Your task to perform on an android device: set the stopwatch Image 0: 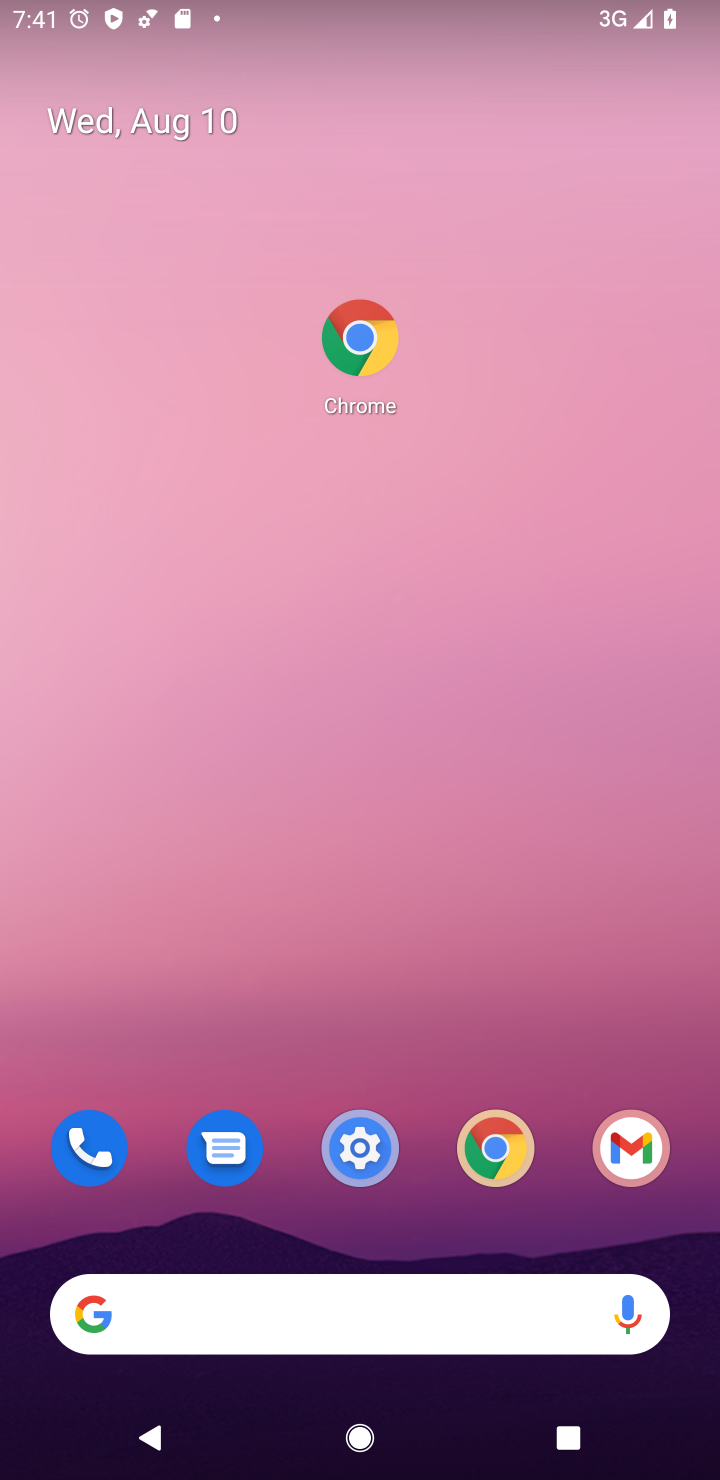
Step 0: drag from (402, 1206) to (515, 325)
Your task to perform on an android device: set the stopwatch Image 1: 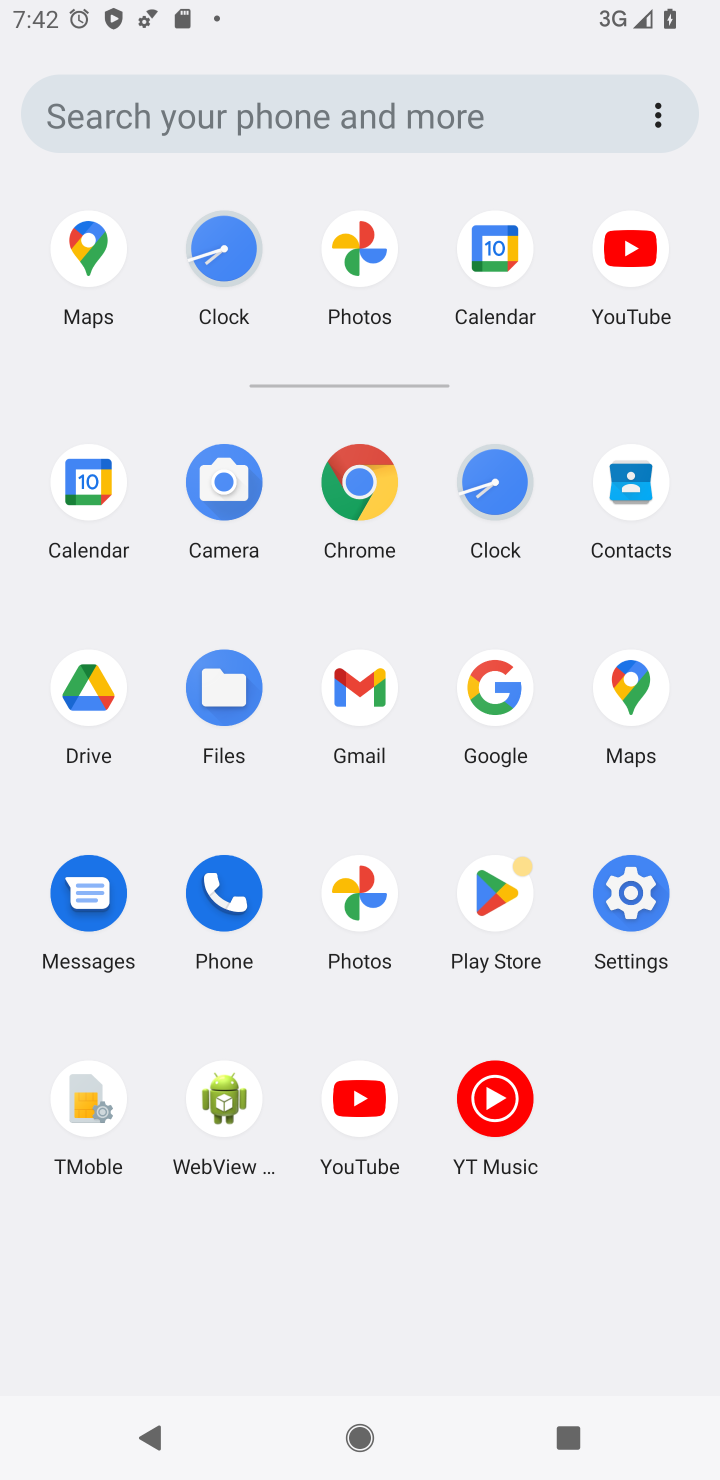
Step 1: click (487, 484)
Your task to perform on an android device: set the stopwatch Image 2: 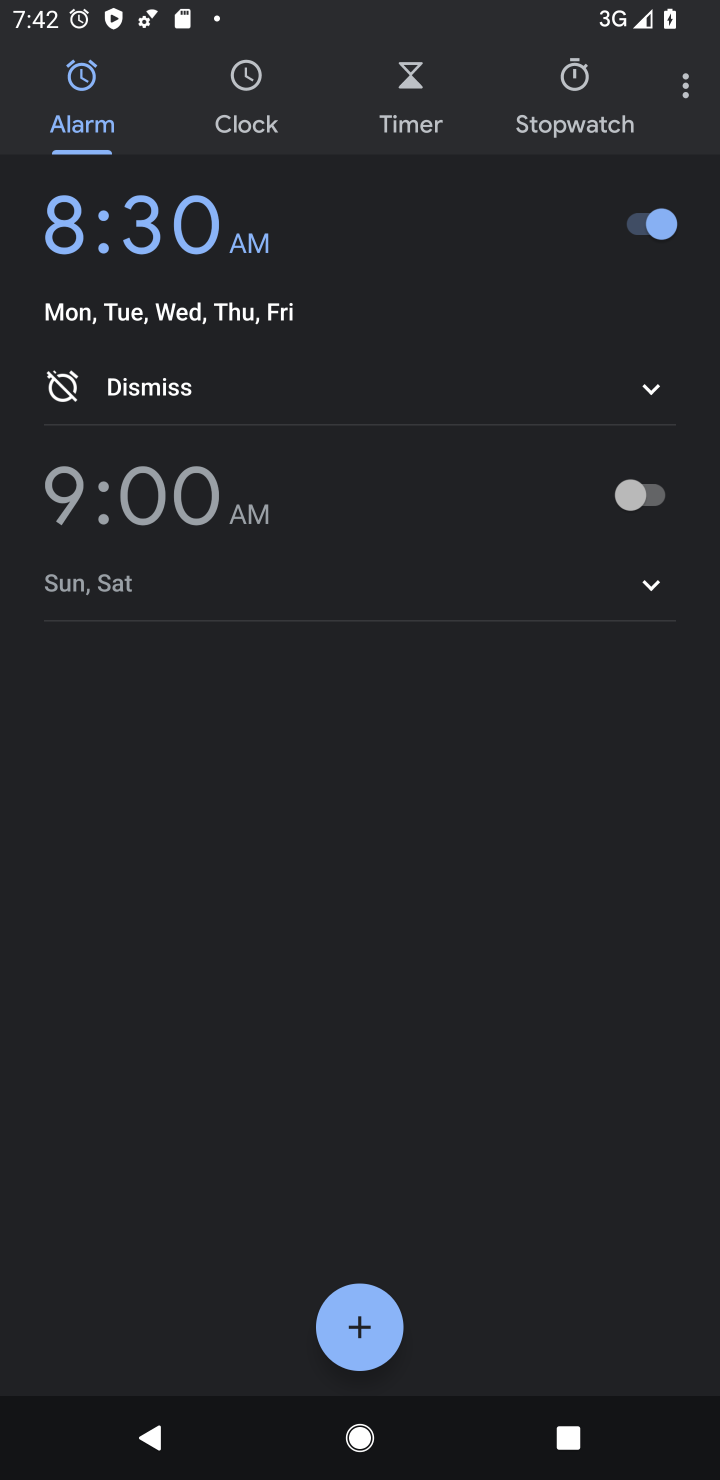
Step 2: click (563, 103)
Your task to perform on an android device: set the stopwatch Image 3: 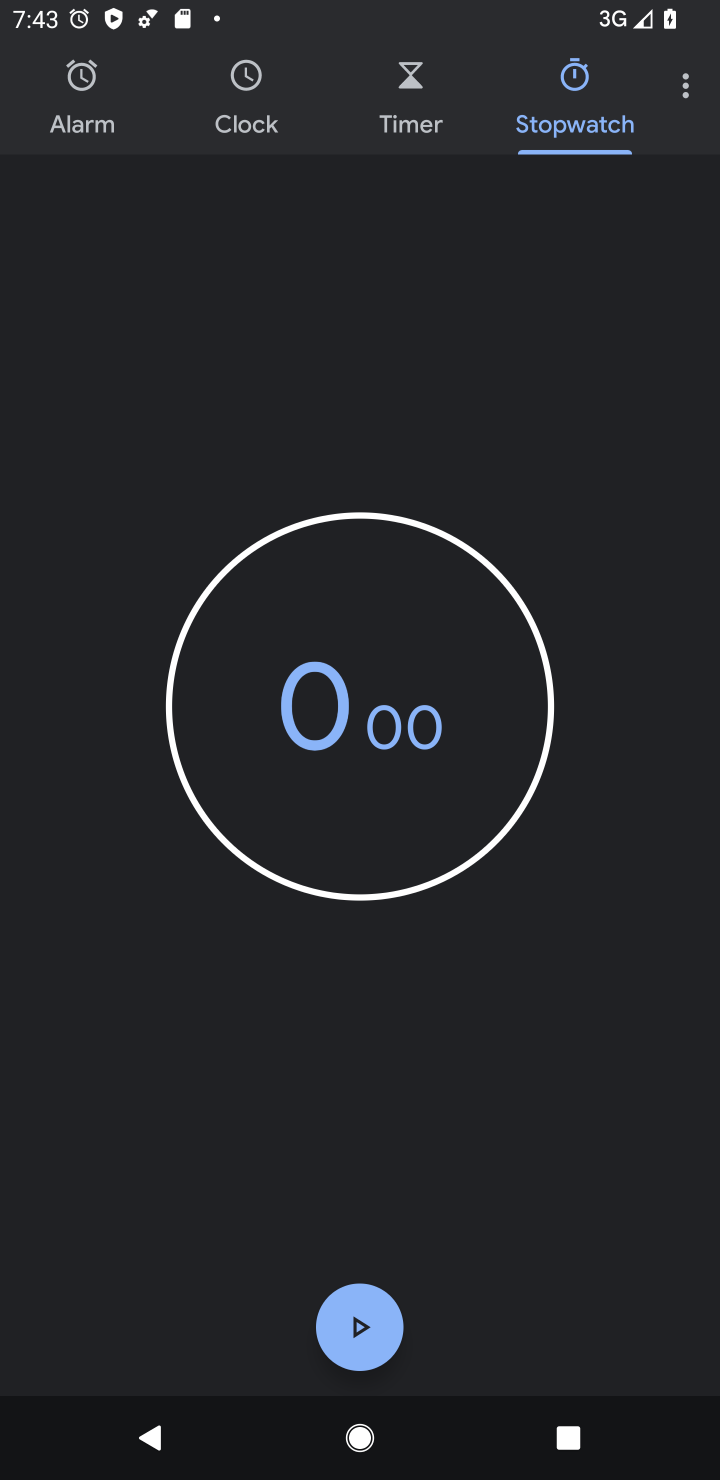
Step 3: task complete